Your task to perform on an android device: Search for acer nitro on walmart.com, select the first entry, add it to the cart, then select checkout. Image 0: 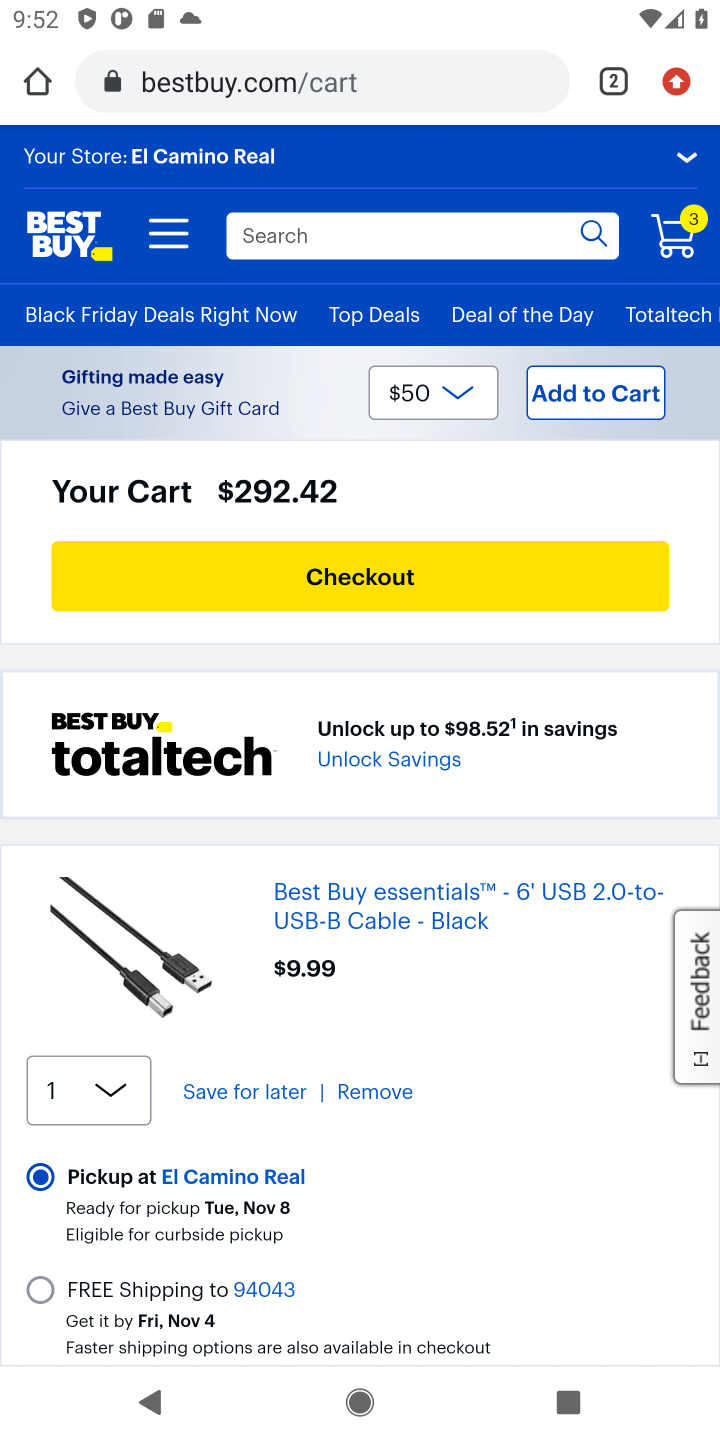
Step 0: press home button
Your task to perform on an android device: Search for acer nitro on walmart.com, select the first entry, add it to the cart, then select checkout. Image 1: 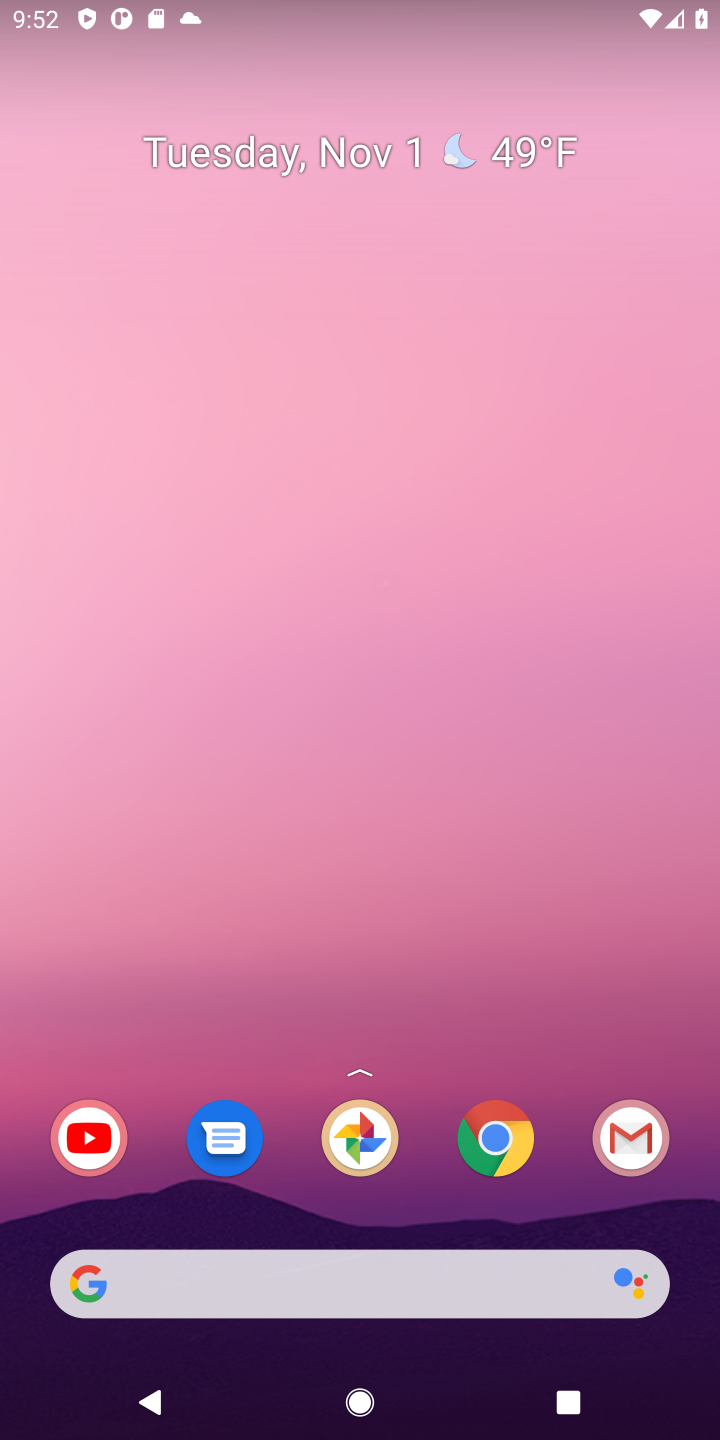
Step 1: click (501, 1136)
Your task to perform on an android device: Search for acer nitro on walmart.com, select the first entry, add it to the cart, then select checkout. Image 2: 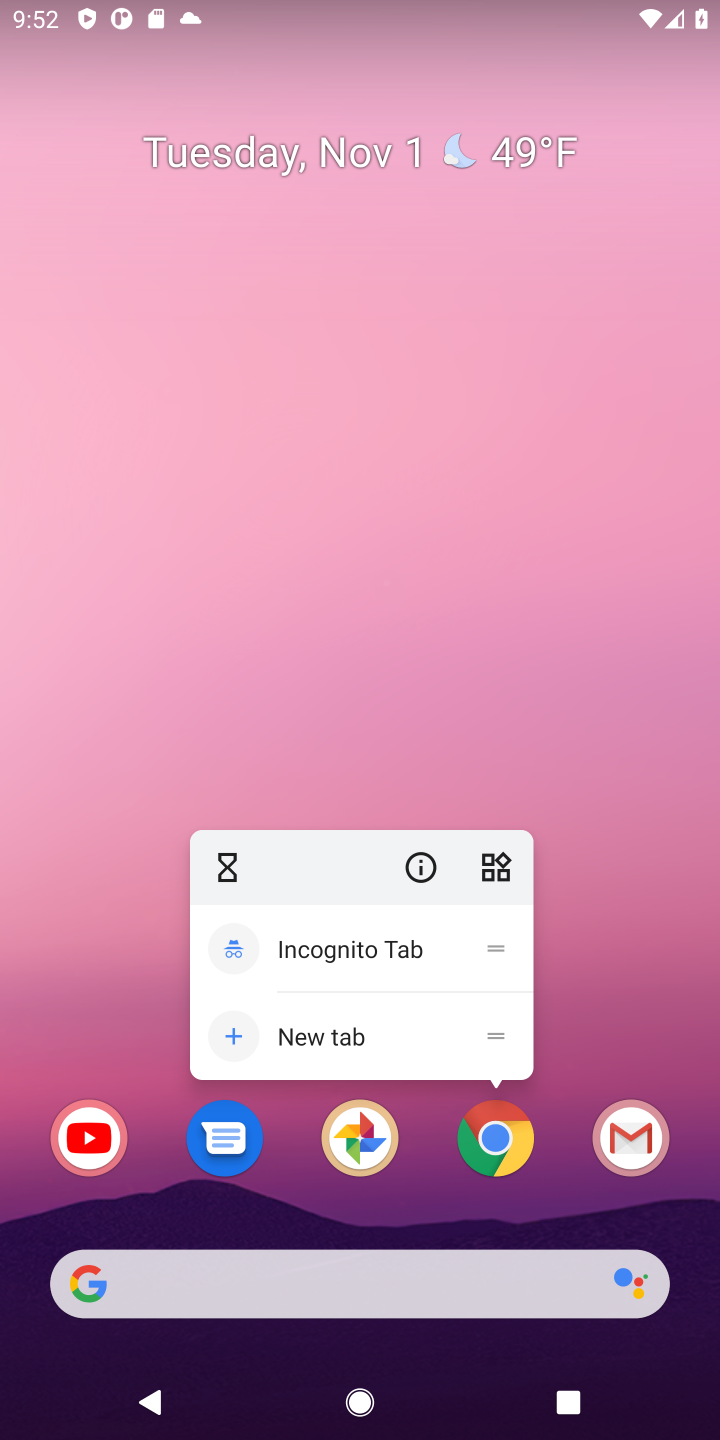
Step 2: click (498, 1140)
Your task to perform on an android device: Search for acer nitro on walmart.com, select the first entry, add it to the cart, then select checkout. Image 3: 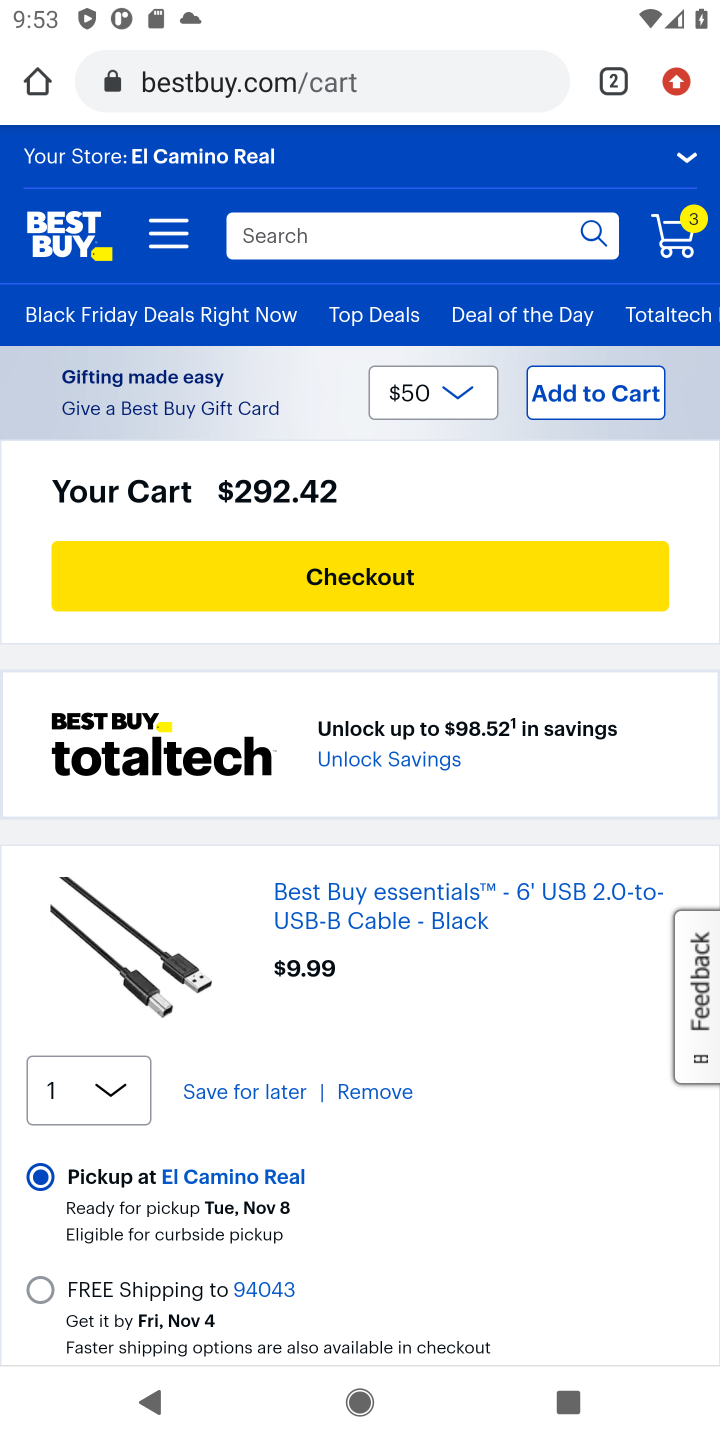
Step 3: click (379, 90)
Your task to perform on an android device: Search for acer nitro on walmart.com, select the first entry, add it to the cart, then select checkout. Image 4: 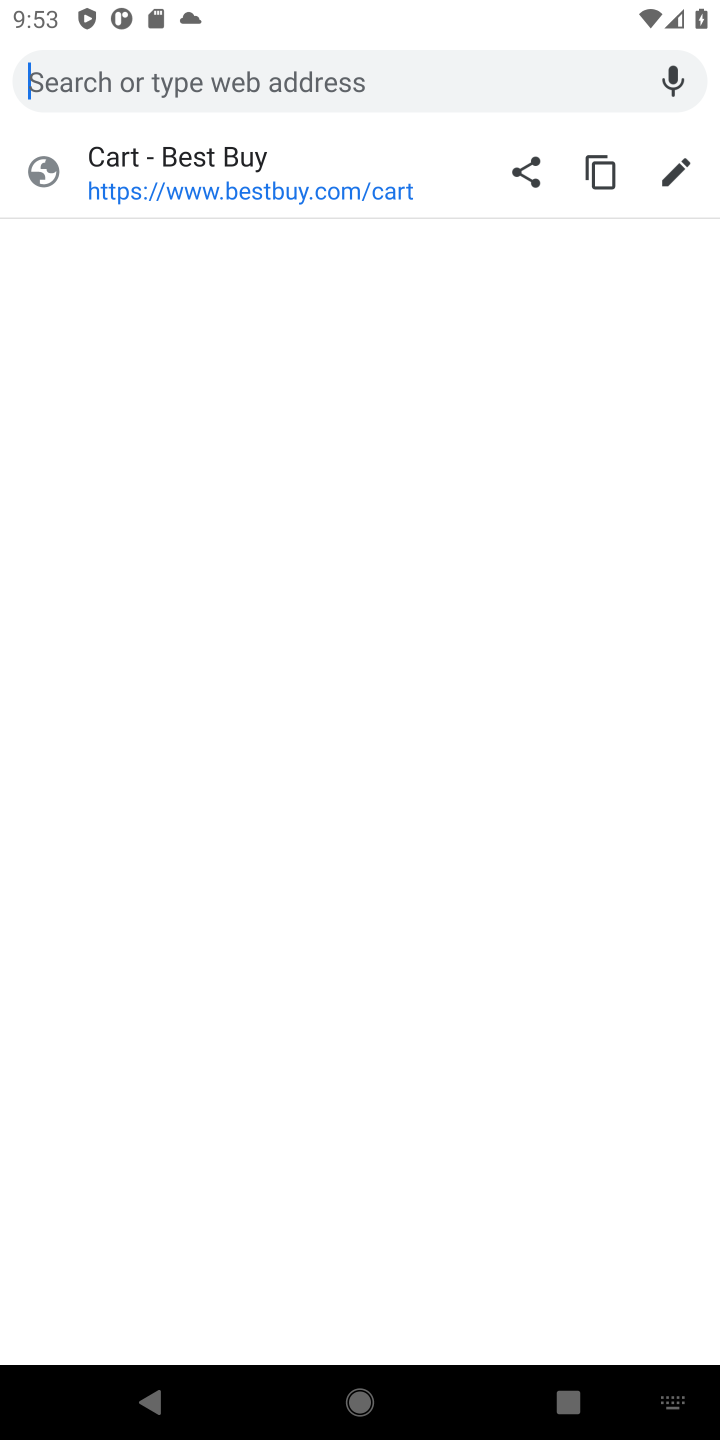
Step 4: type "walmart.com"
Your task to perform on an android device: Search for acer nitro on walmart.com, select the first entry, add it to the cart, then select checkout. Image 5: 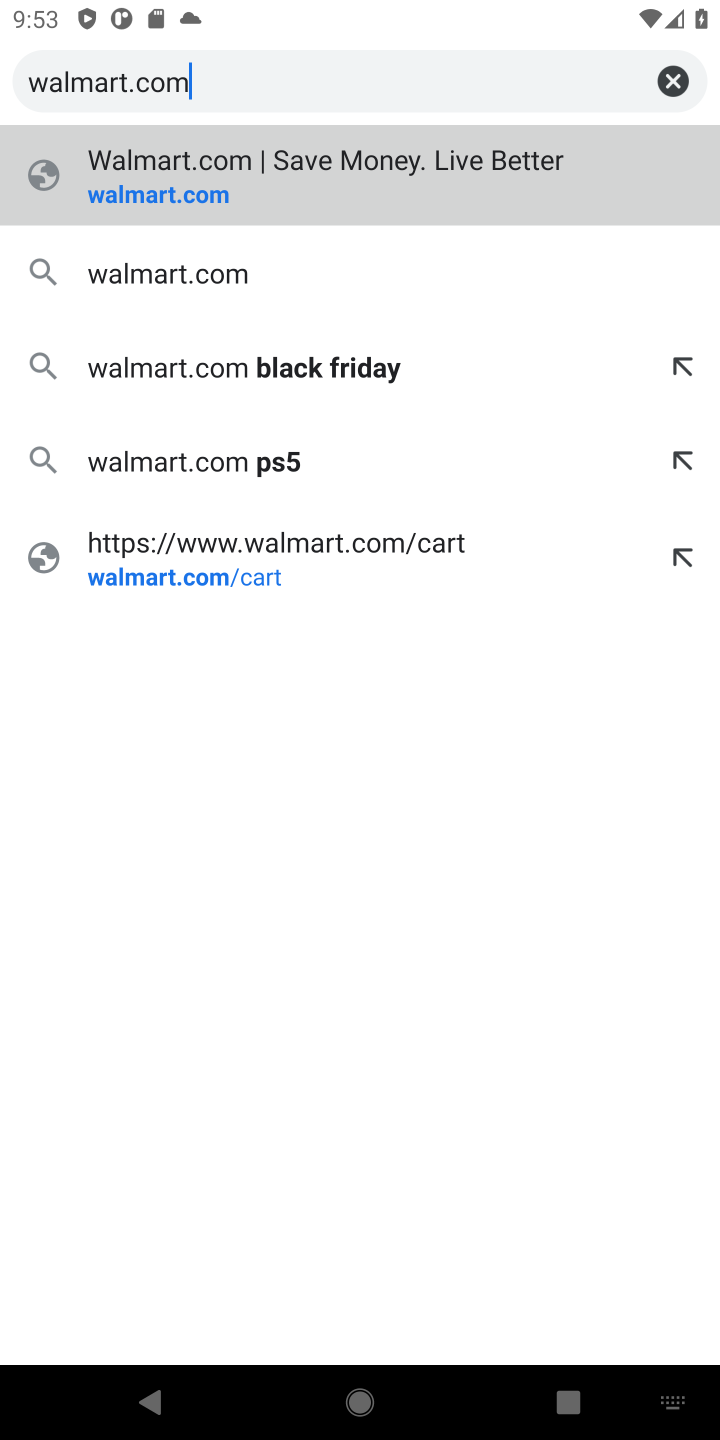
Step 5: click (188, 283)
Your task to perform on an android device: Search for acer nitro on walmart.com, select the first entry, add it to the cart, then select checkout. Image 6: 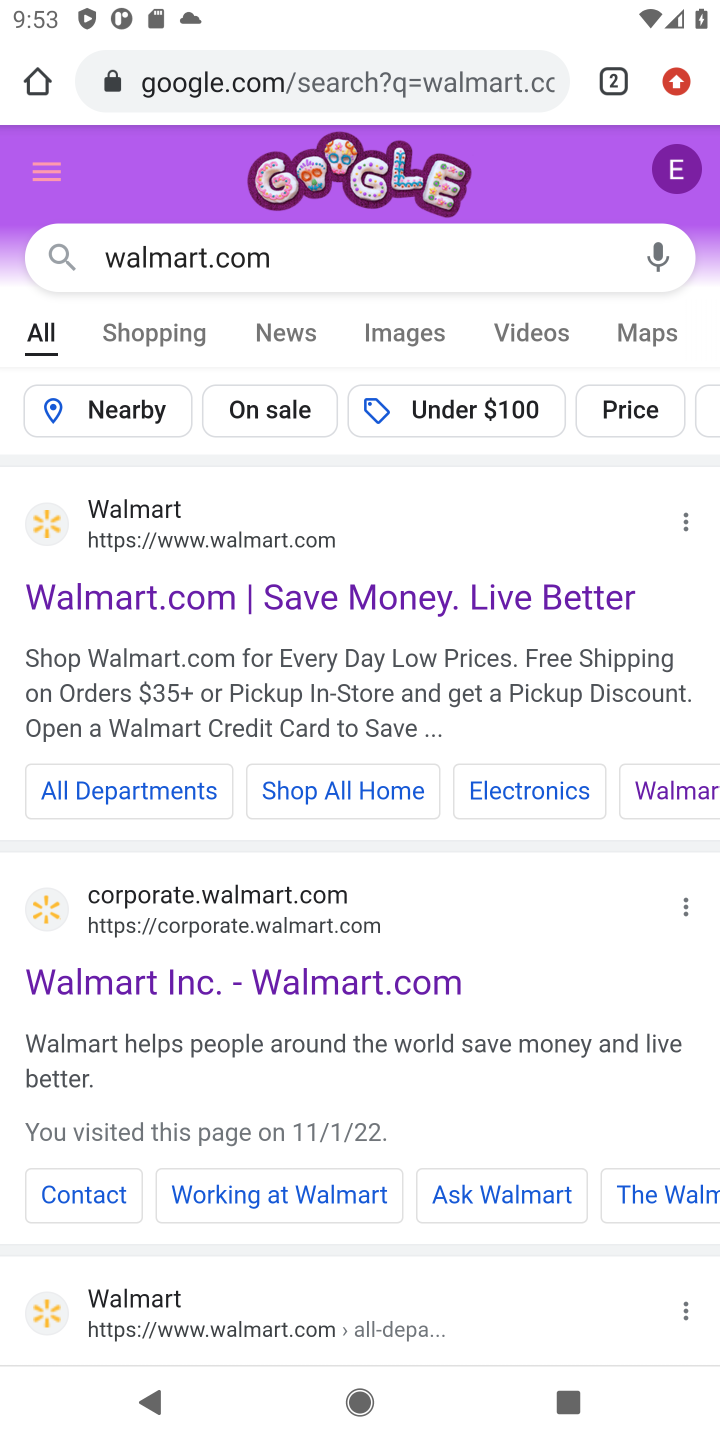
Step 6: click (230, 566)
Your task to perform on an android device: Search for acer nitro on walmart.com, select the first entry, add it to the cart, then select checkout. Image 7: 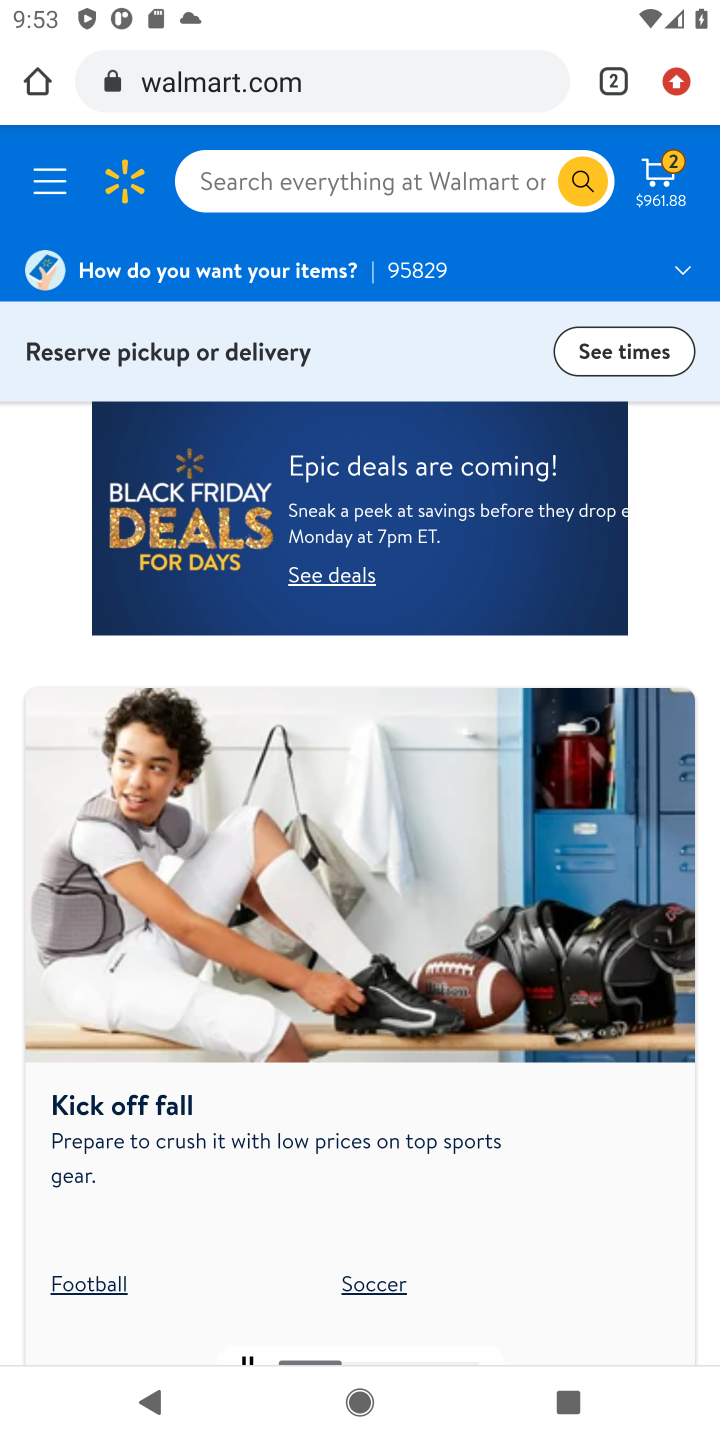
Step 7: click (445, 179)
Your task to perform on an android device: Search for acer nitro on walmart.com, select the first entry, add it to the cart, then select checkout. Image 8: 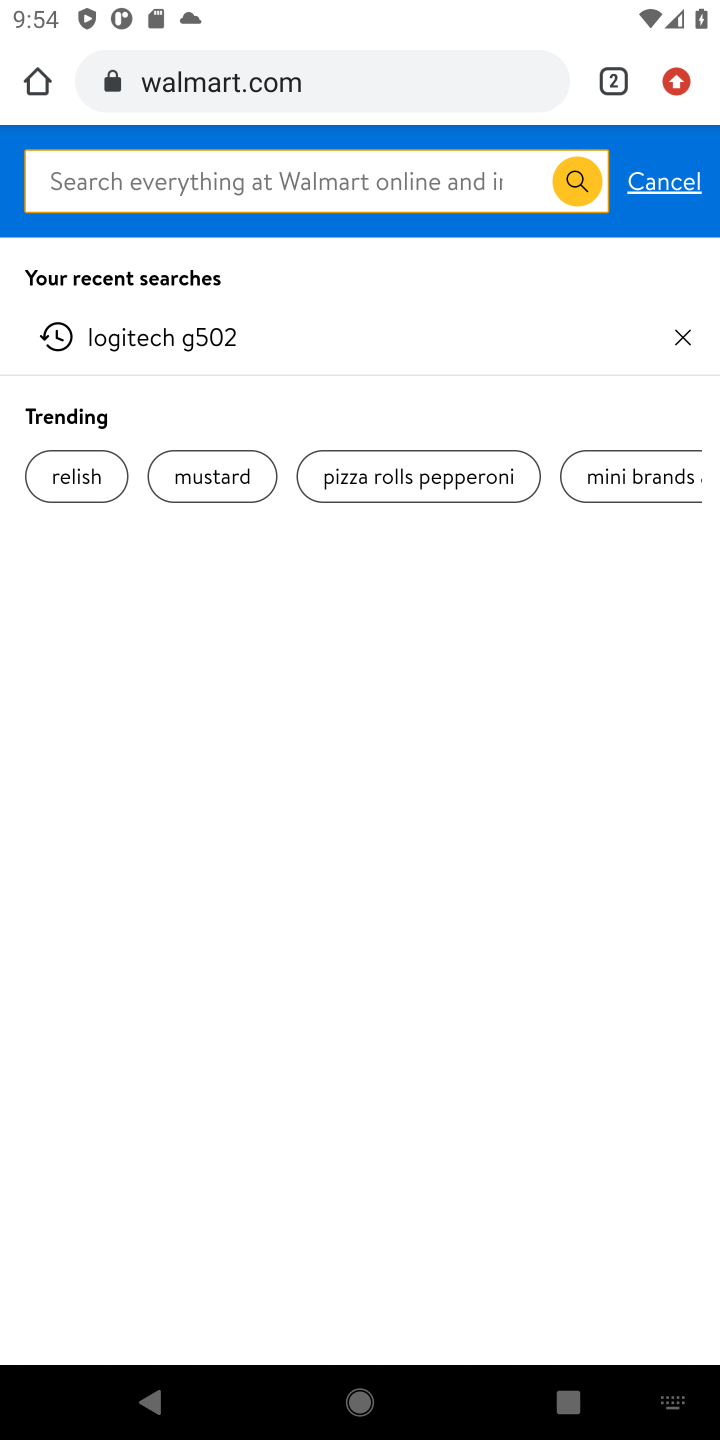
Step 8: type "acer nitro"
Your task to perform on an android device: Search for acer nitro on walmart.com, select the first entry, add it to the cart, then select checkout. Image 9: 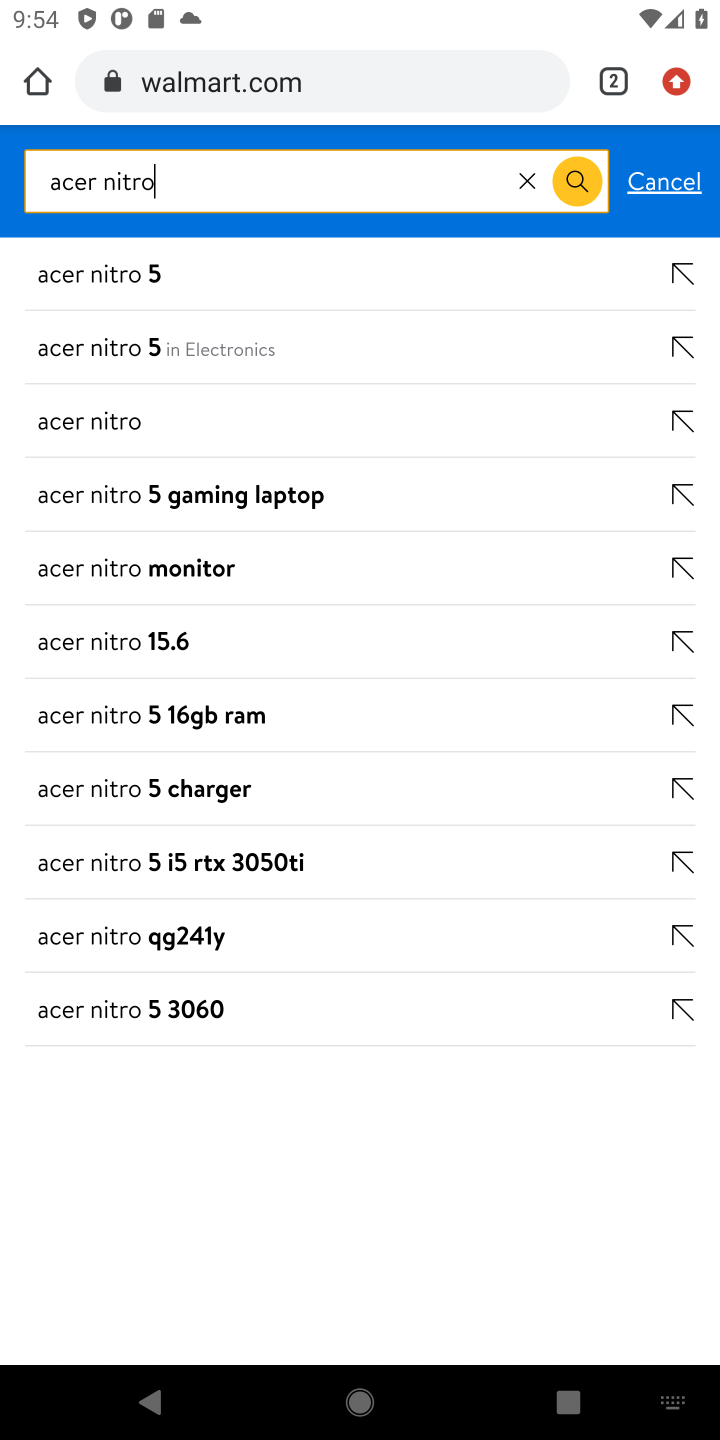
Step 9: click (581, 184)
Your task to perform on an android device: Search for acer nitro on walmart.com, select the first entry, add it to the cart, then select checkout. Image 10: 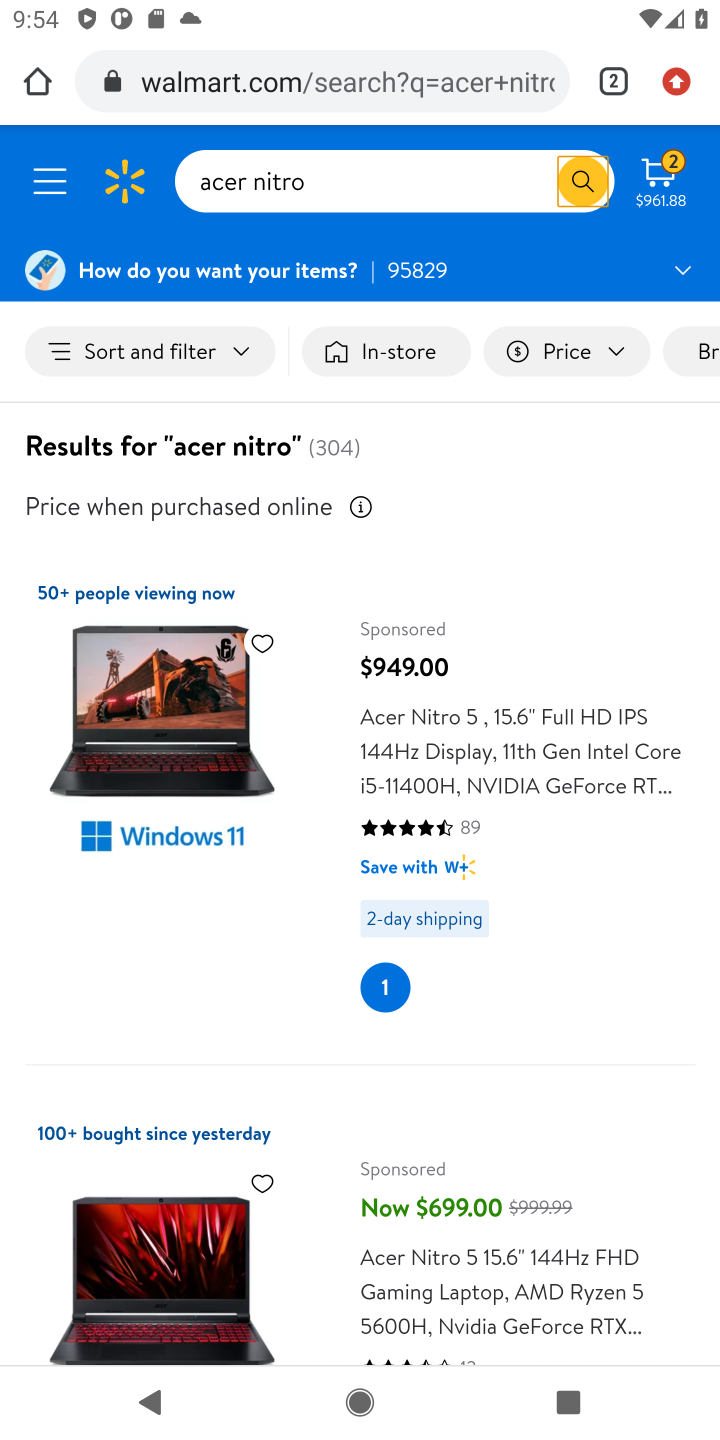
Step 10: click (419, 708)
Your task to perform on an android device: Search for acer nitro on walmart.com, select the first entry, add it to the cart, then select checkout. Image 11: 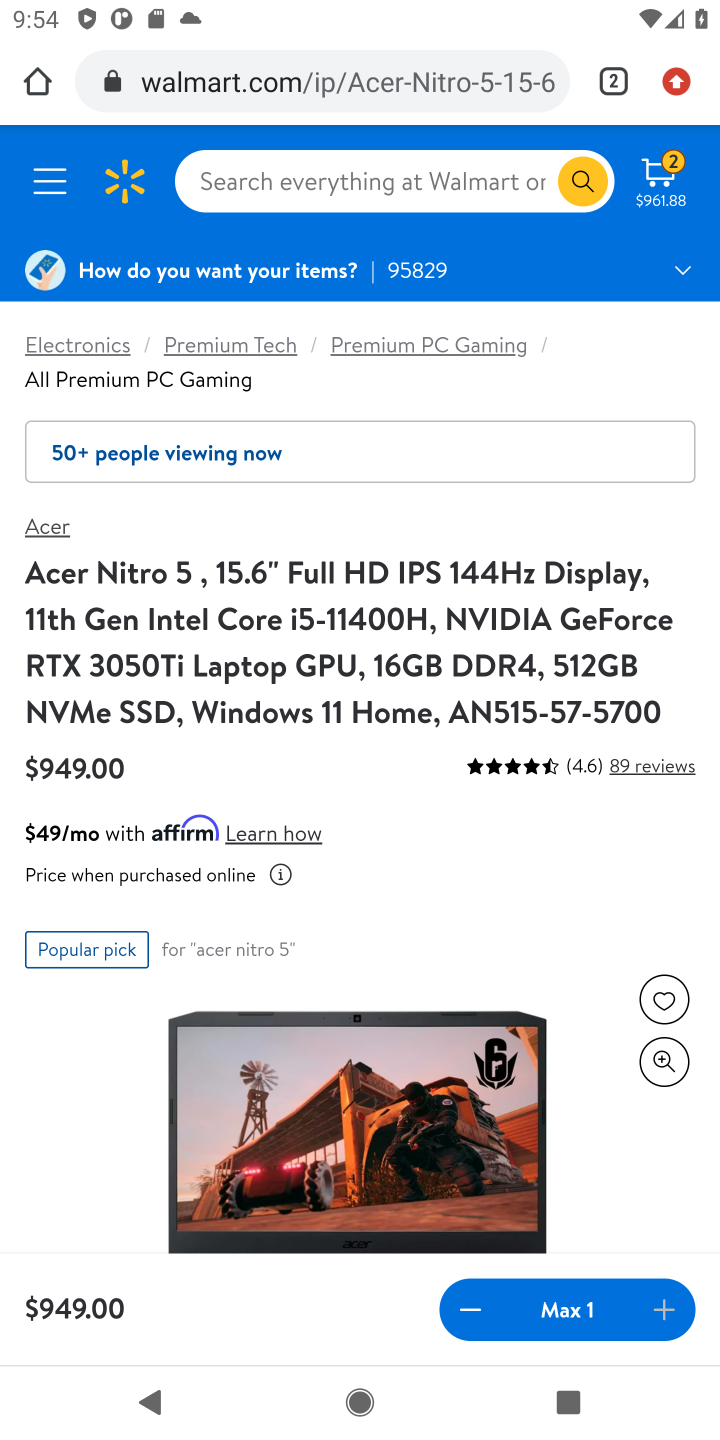
Step 11: click (669, 185)
Your task to perform on an android device: Search for acer nitro on walmart.com, select the first entry, add it to the cart, then select checkout. Image 12: 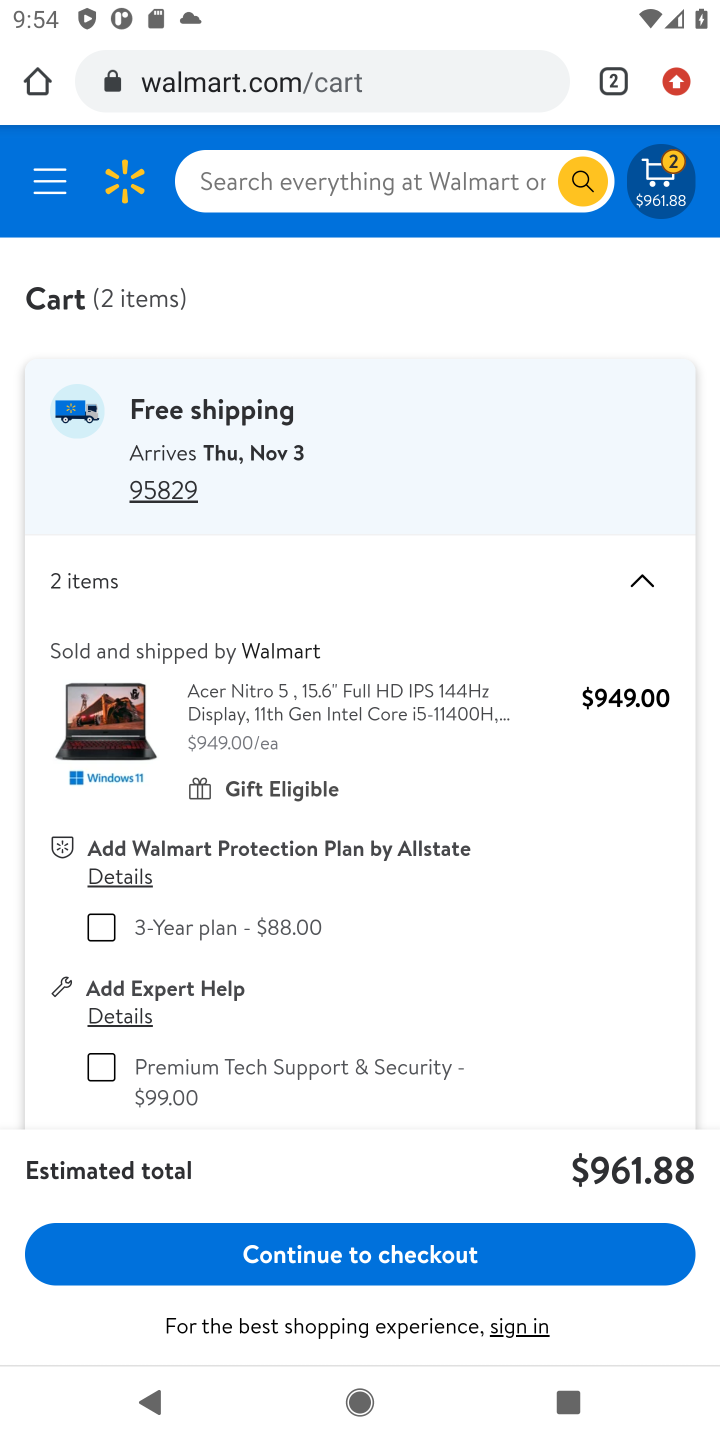
Step 12: click (355, 1259)
Your task to perform on an android device: Search for acer nitro on walmart.com, select the first entry, add it to the cart, then select checkout. Image 13: 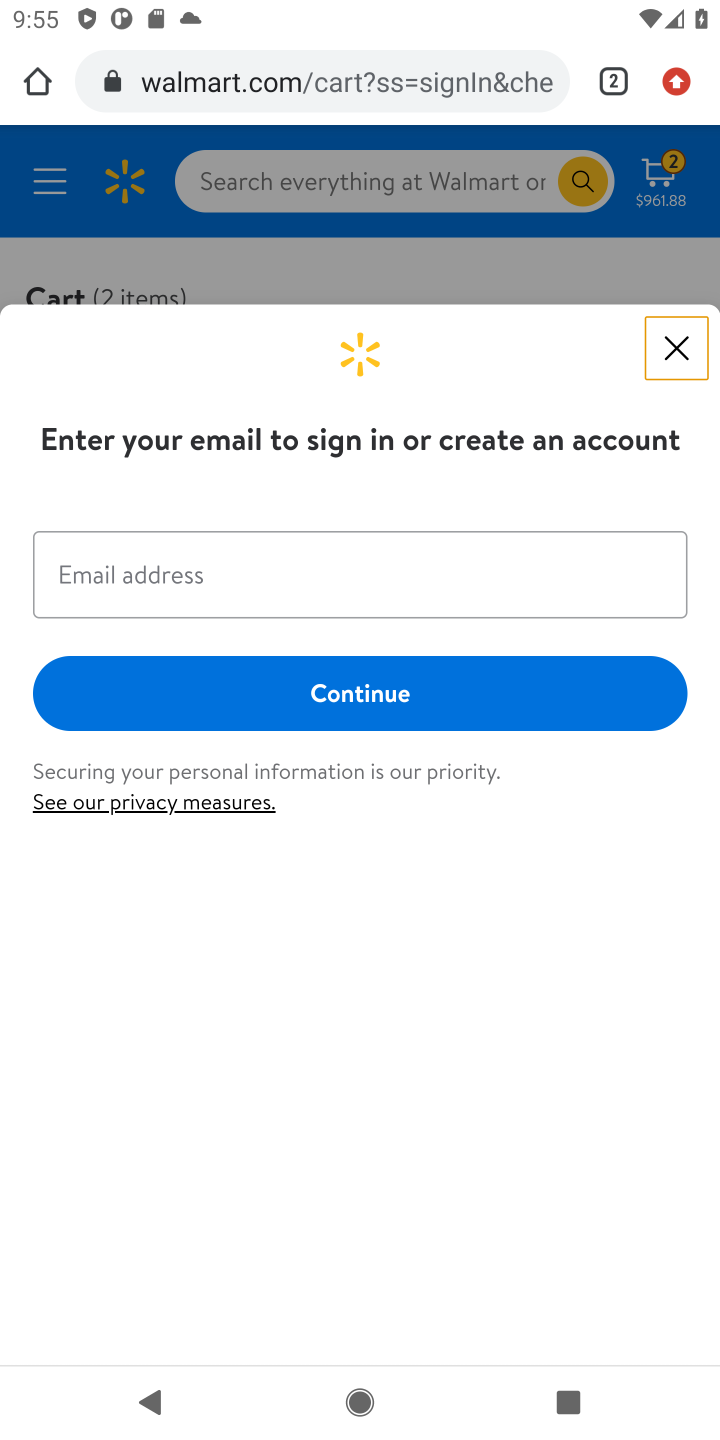
Step 13: task complete